Your task to perform on an android device: Add lg ultragear to the cart on target Image 0: 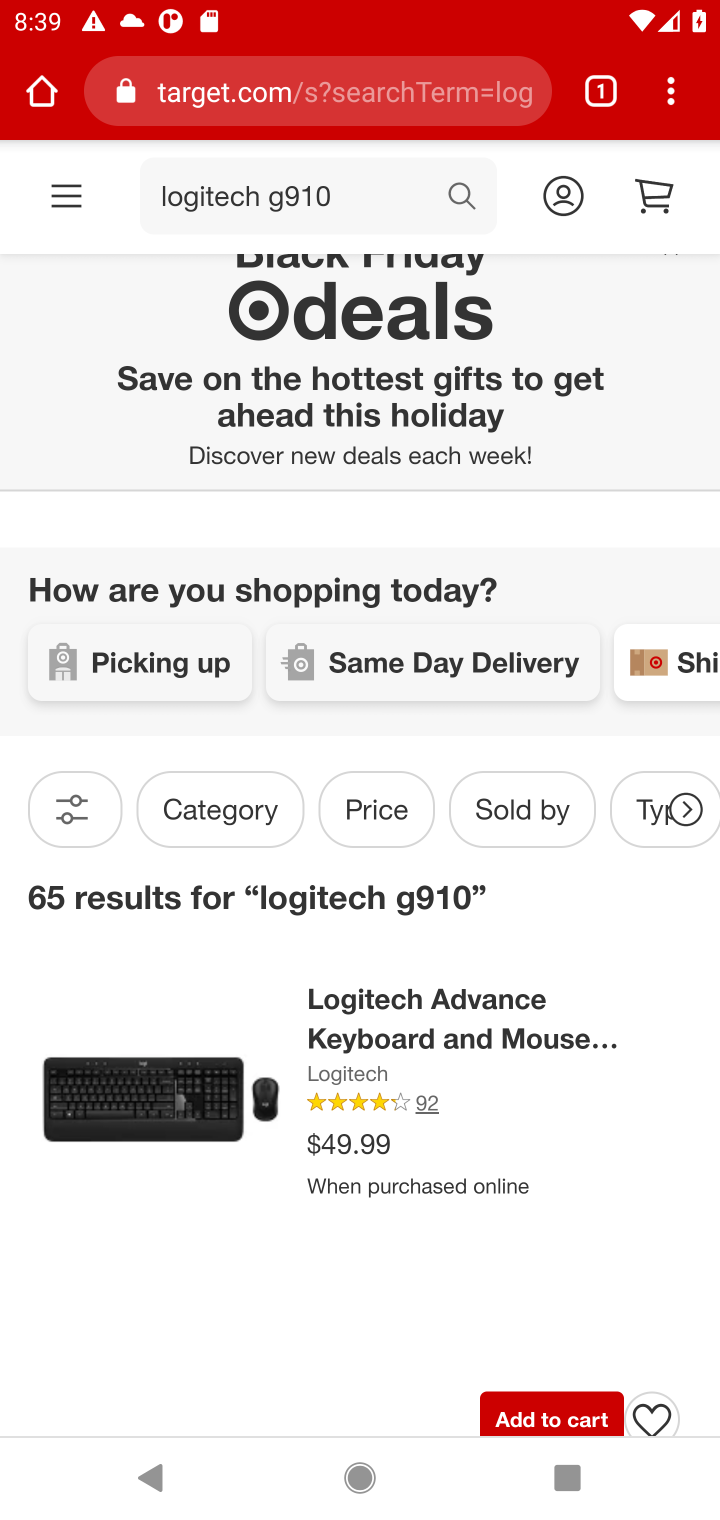
Step 0: press home button
Your task to perform on an android device: Add lg ultragear to the cart on target Image 1: 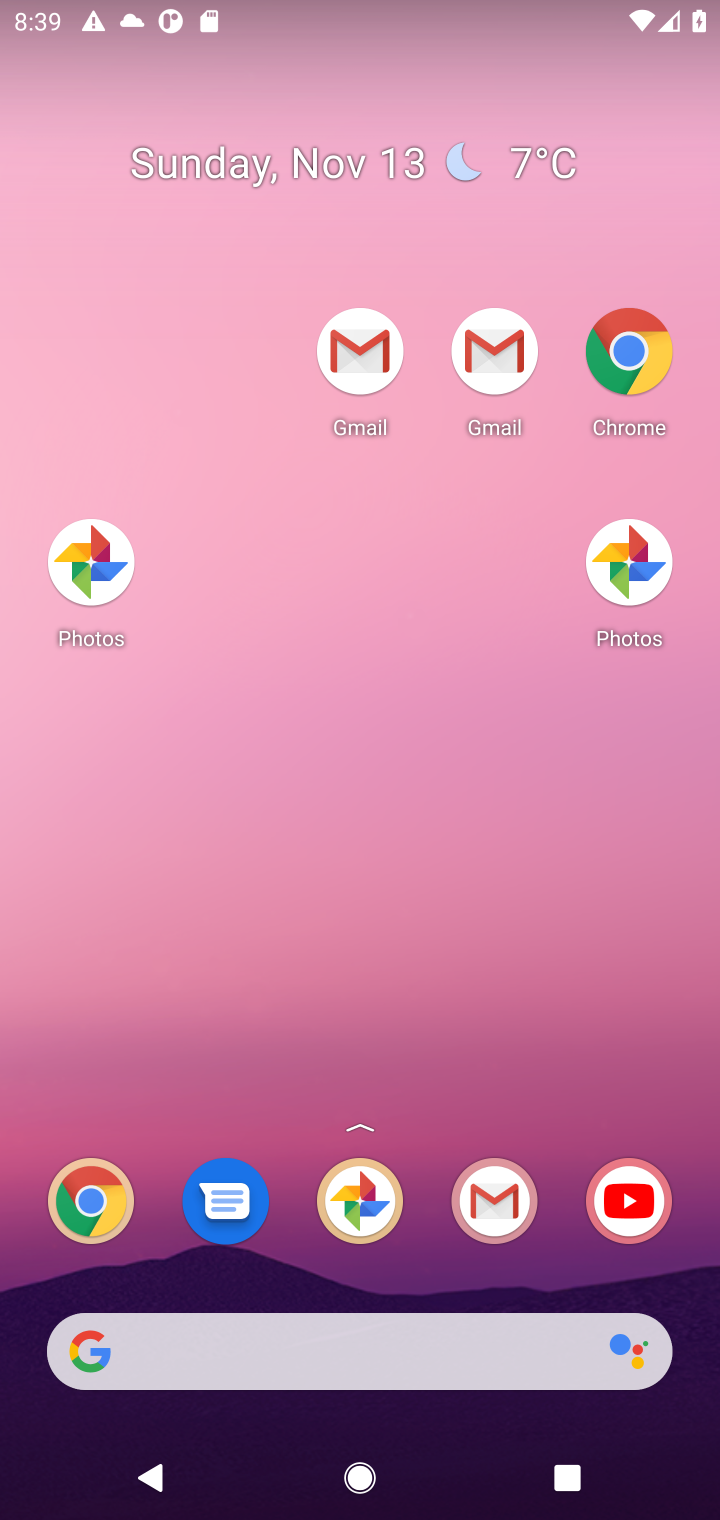
Step 1: drag from (456, 1223) to (407, 192)
Your task to perform on an android device: Add lg ultragear to the cart on target Image 2: 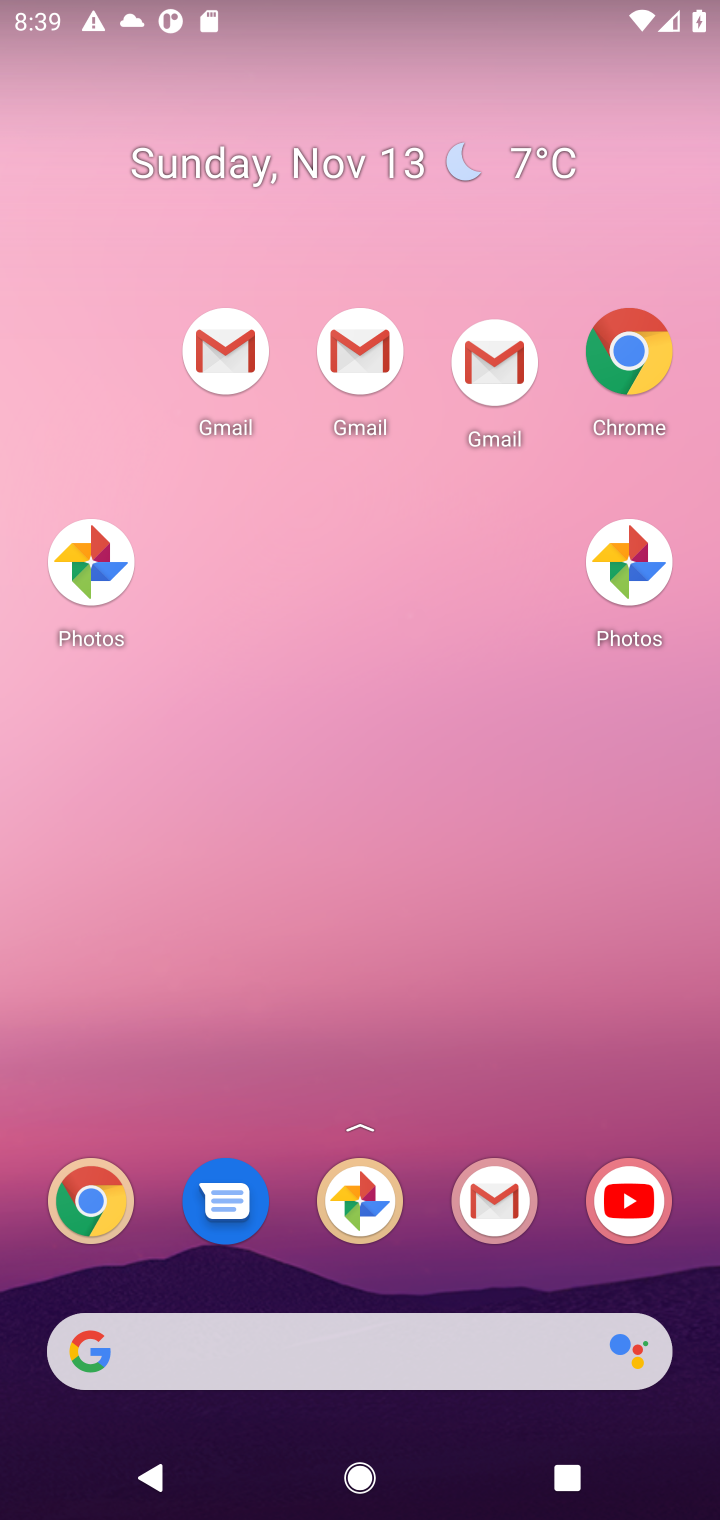
Step 2: drag from (430, 1297) to (449, 279)
Your task to perform on an android device: Add lg ultragear to the cart on target Image 3: 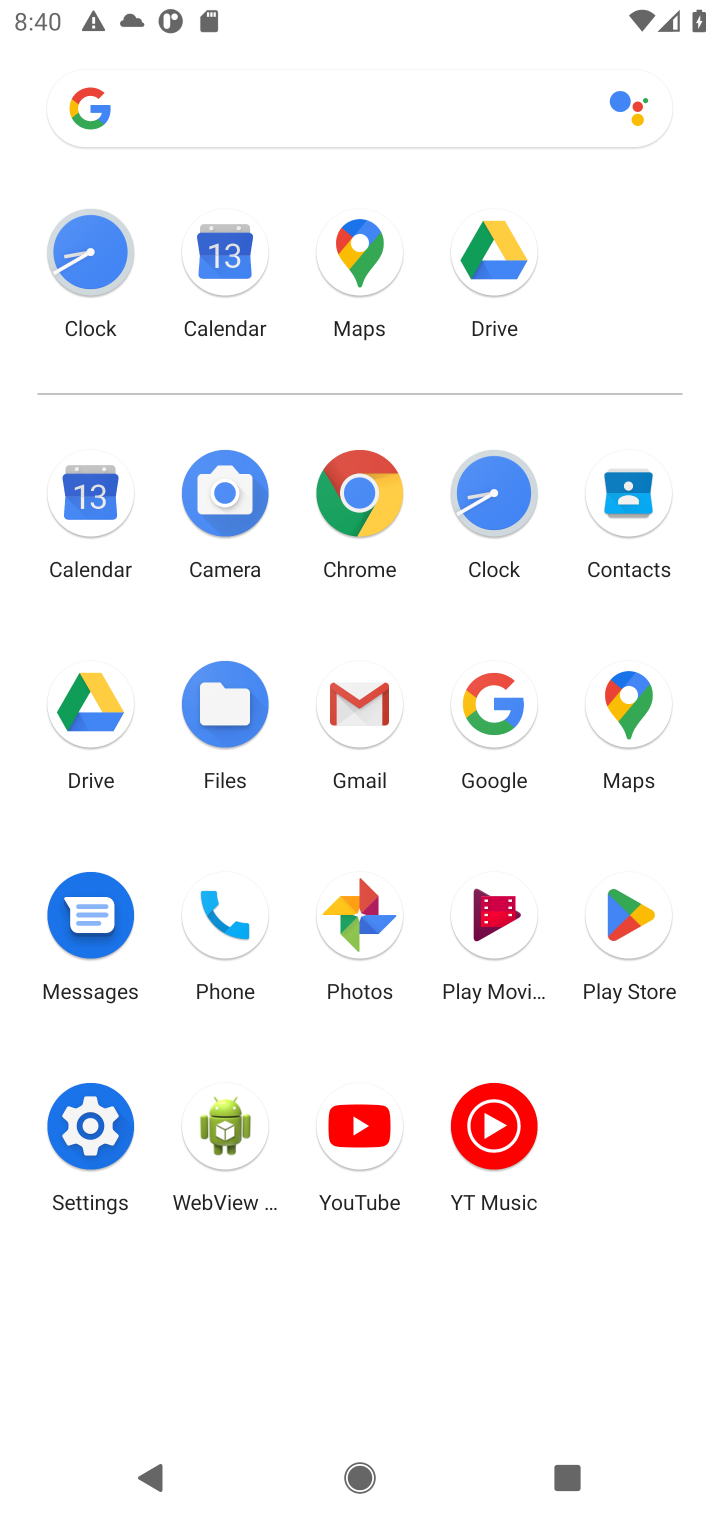
Step 3: click (369, 495)
Your task to perform on an android device: Add lg ultragear to the cart on target Image 4: 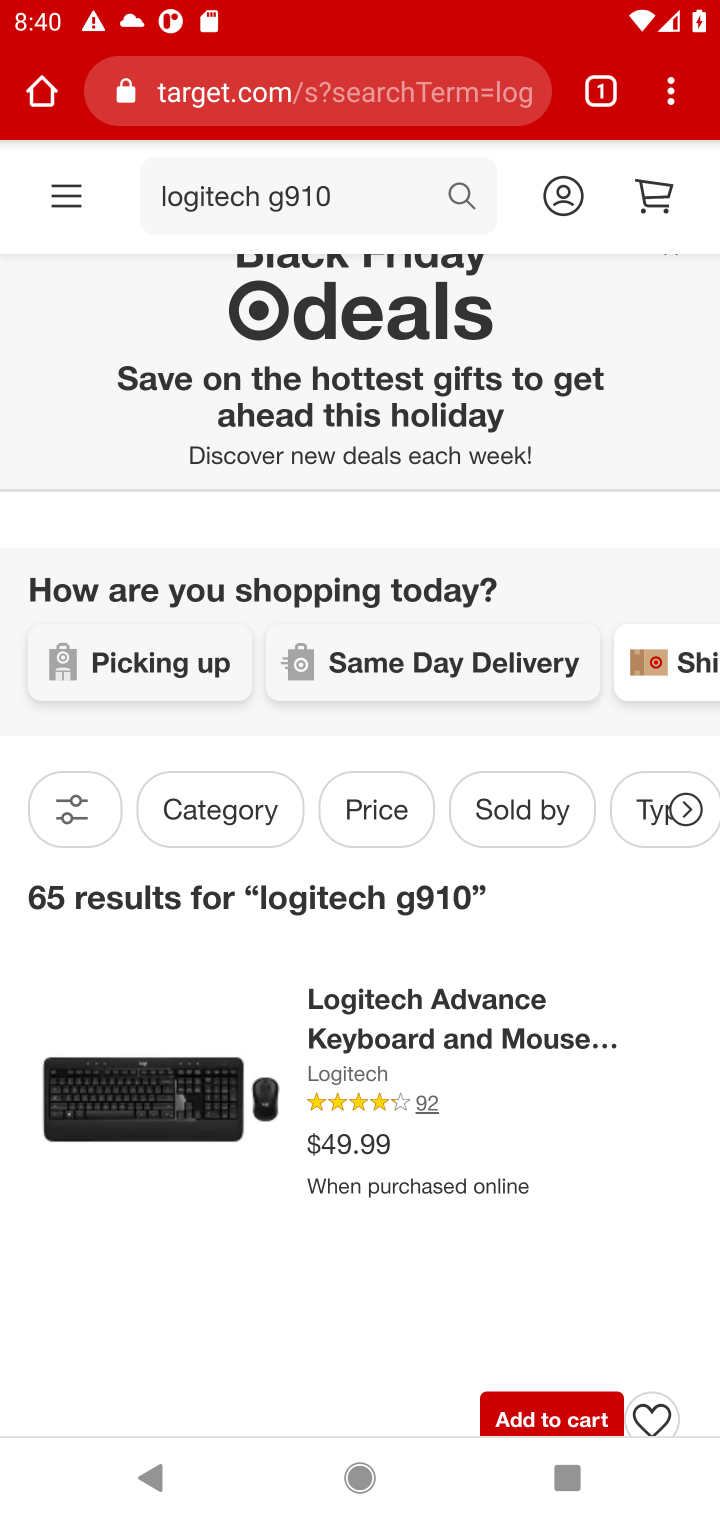
Step 4: click (331, 106)
Your task to perform on an android device: Add lg ultragear to the cart on target Image 5: 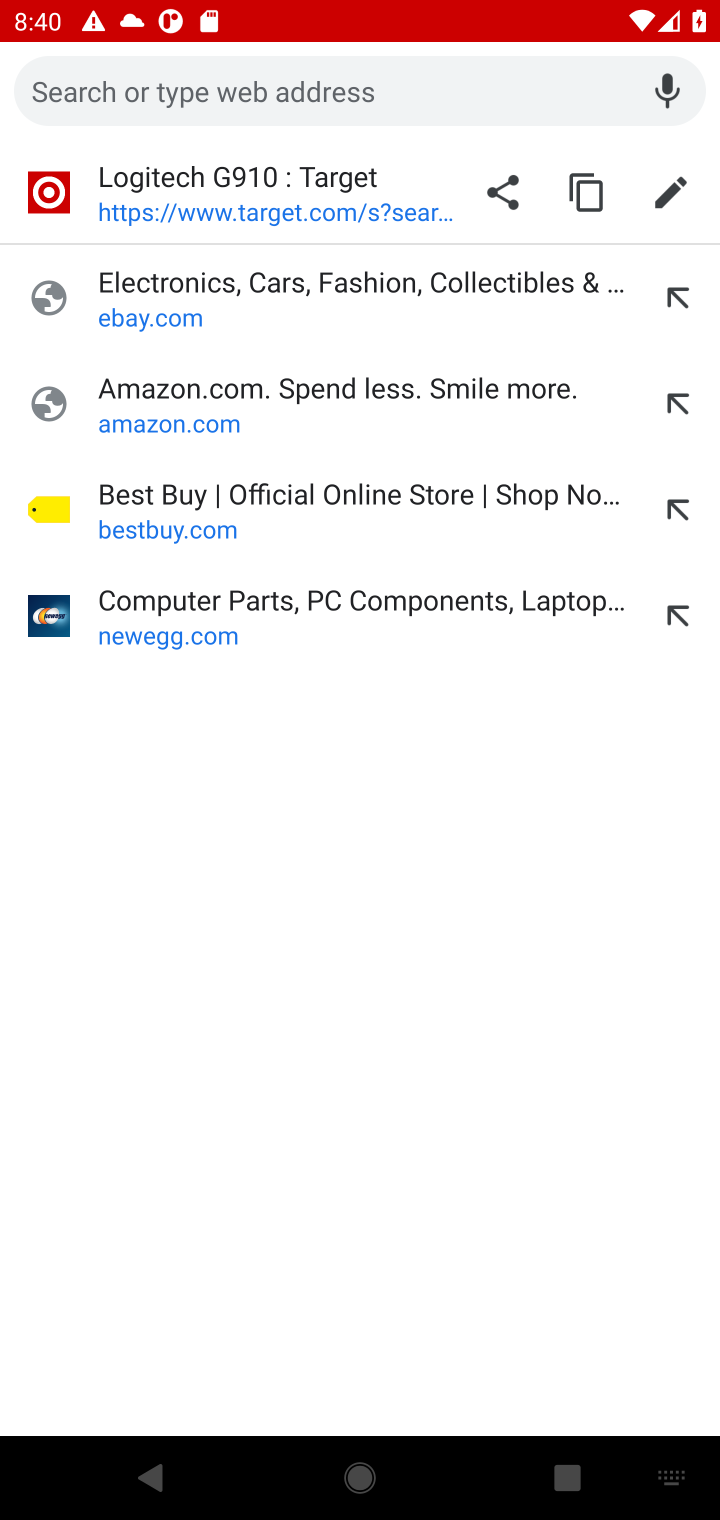
Step 5: type "target.com"
Your task to perform on an android device: Add lg ultragear to the cart on target Image 6: 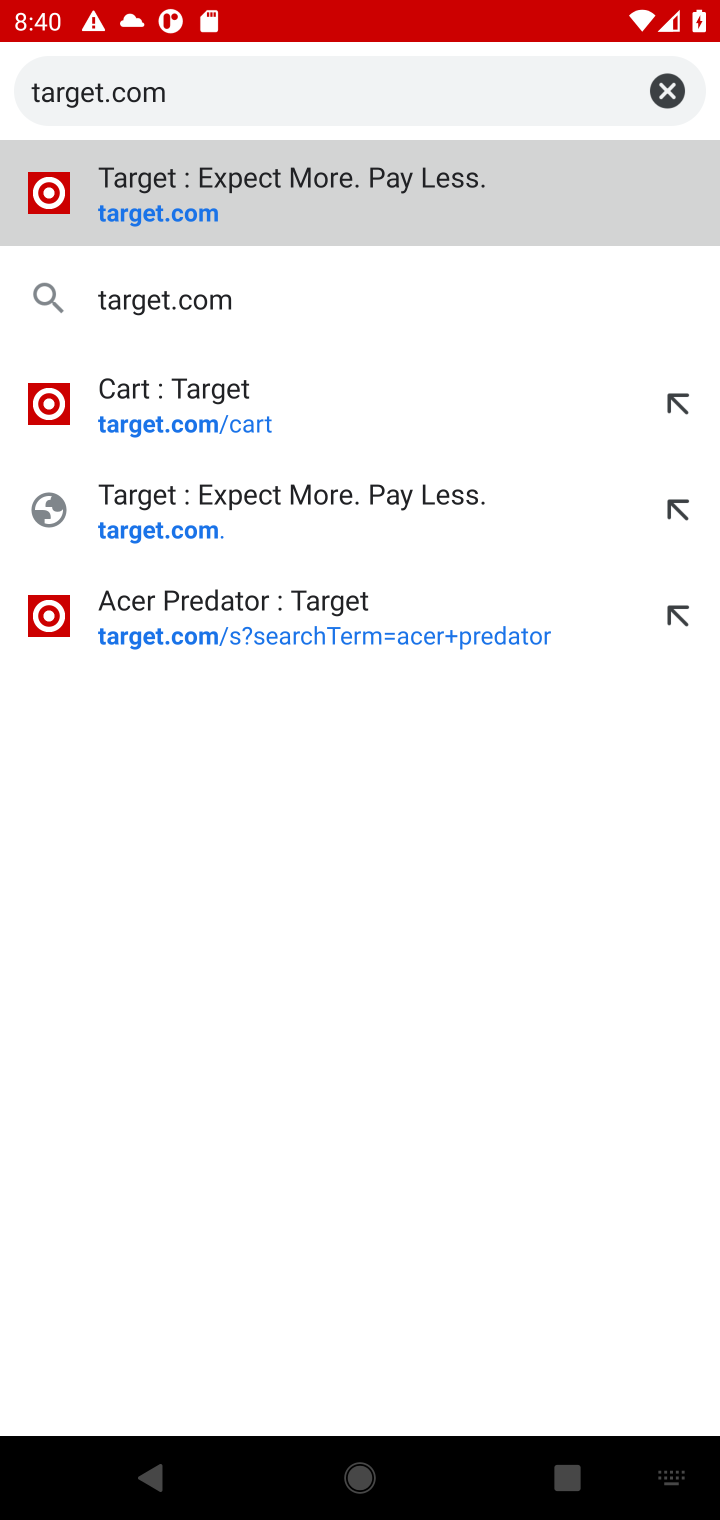
Step 6: press enter
Your task to perform on an android device: Add lg ultragear to the cart on target Image 7: 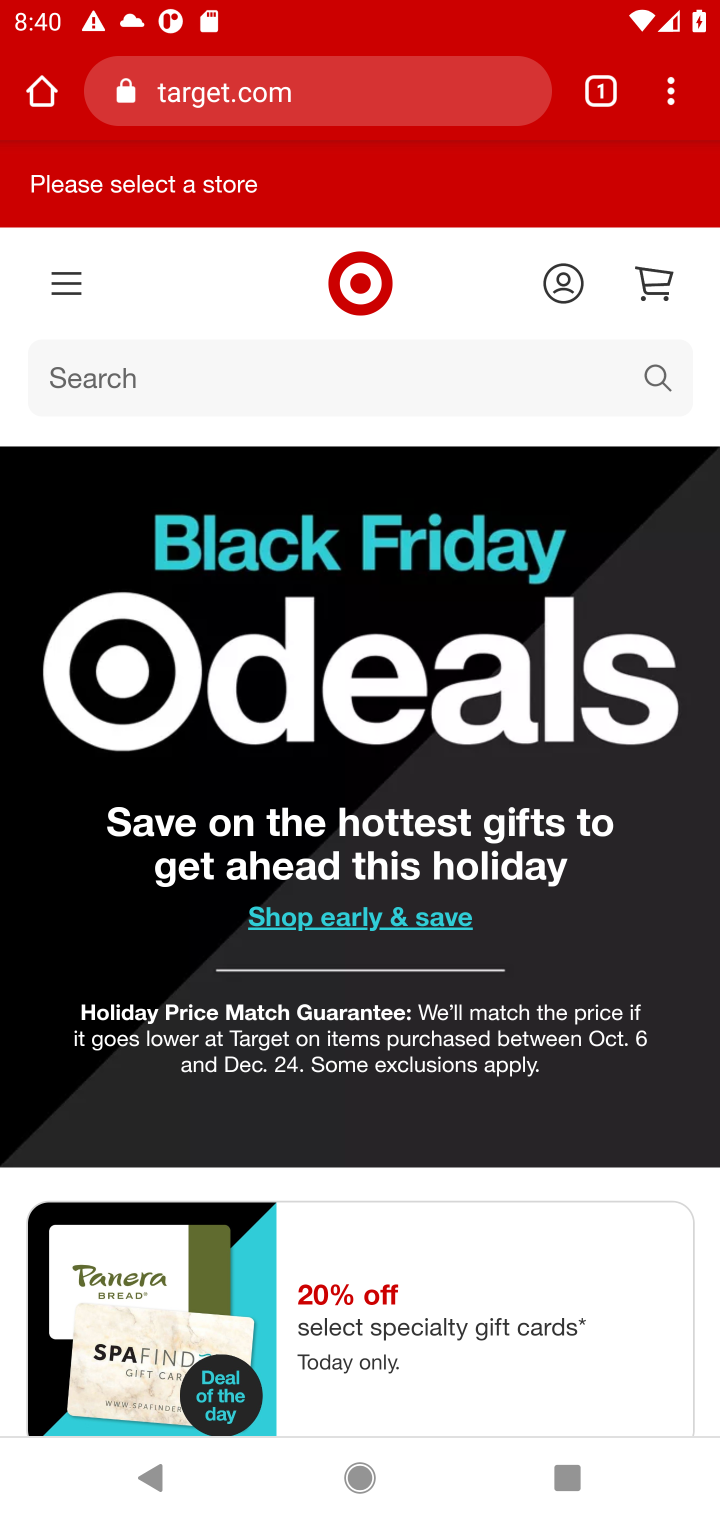
Step 7: click (264, 384)
Your task to perform on an android device: Add lg ultragear to the cart on target Image 8: 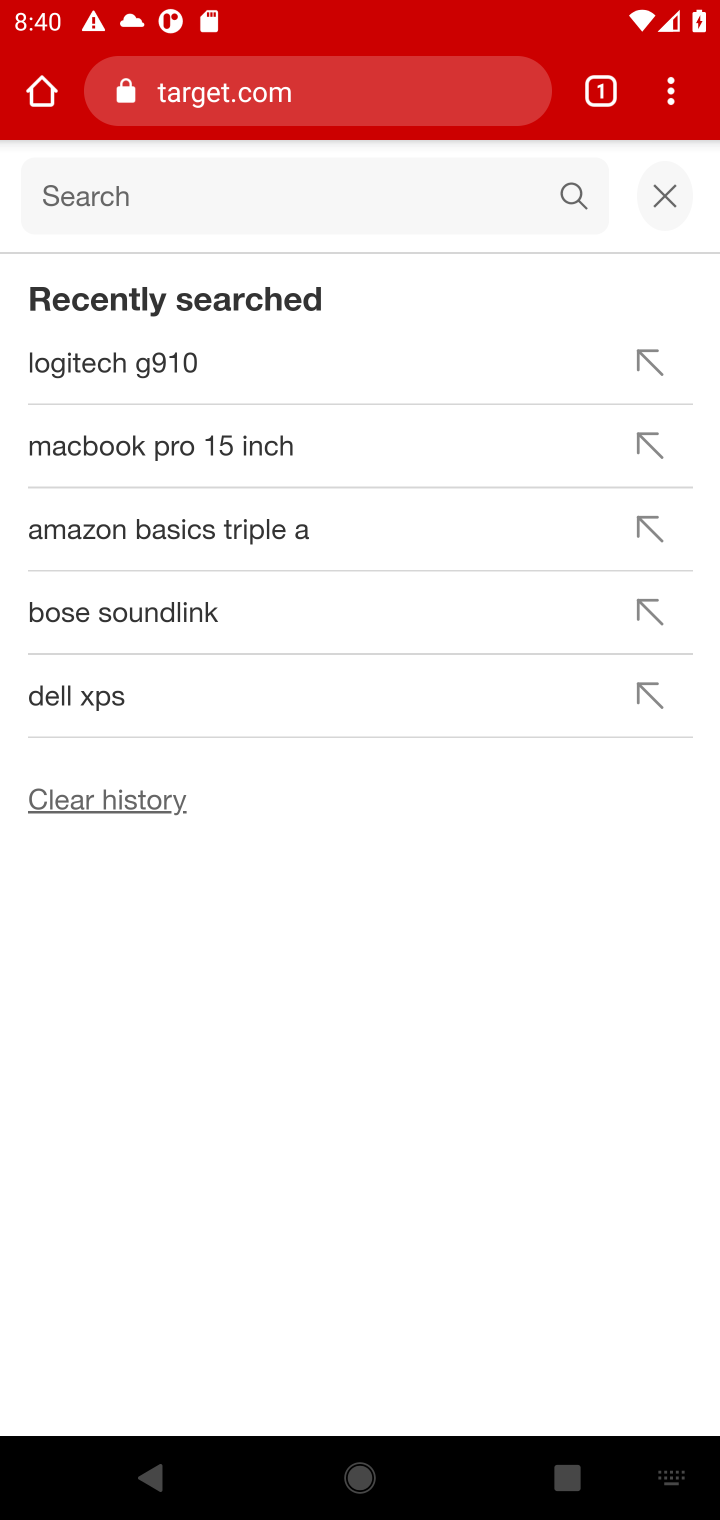
Step 8: type "lg ultragear"
Your task to perform on an android device: Add lg ultragear to the cart on target Image 9: 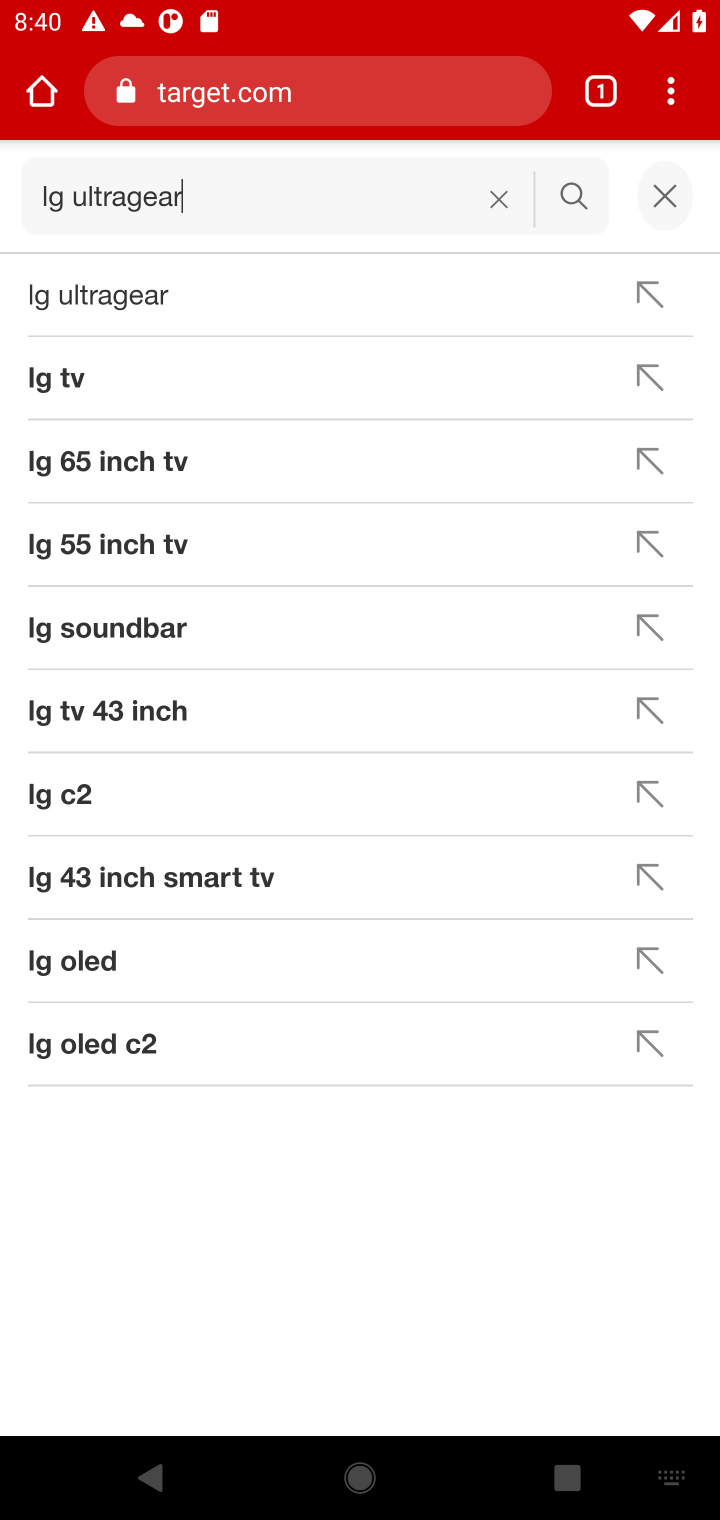
Step 9: press enter
Your task to perform on an android device: Add lg ultragear to the cart on target Image 10: 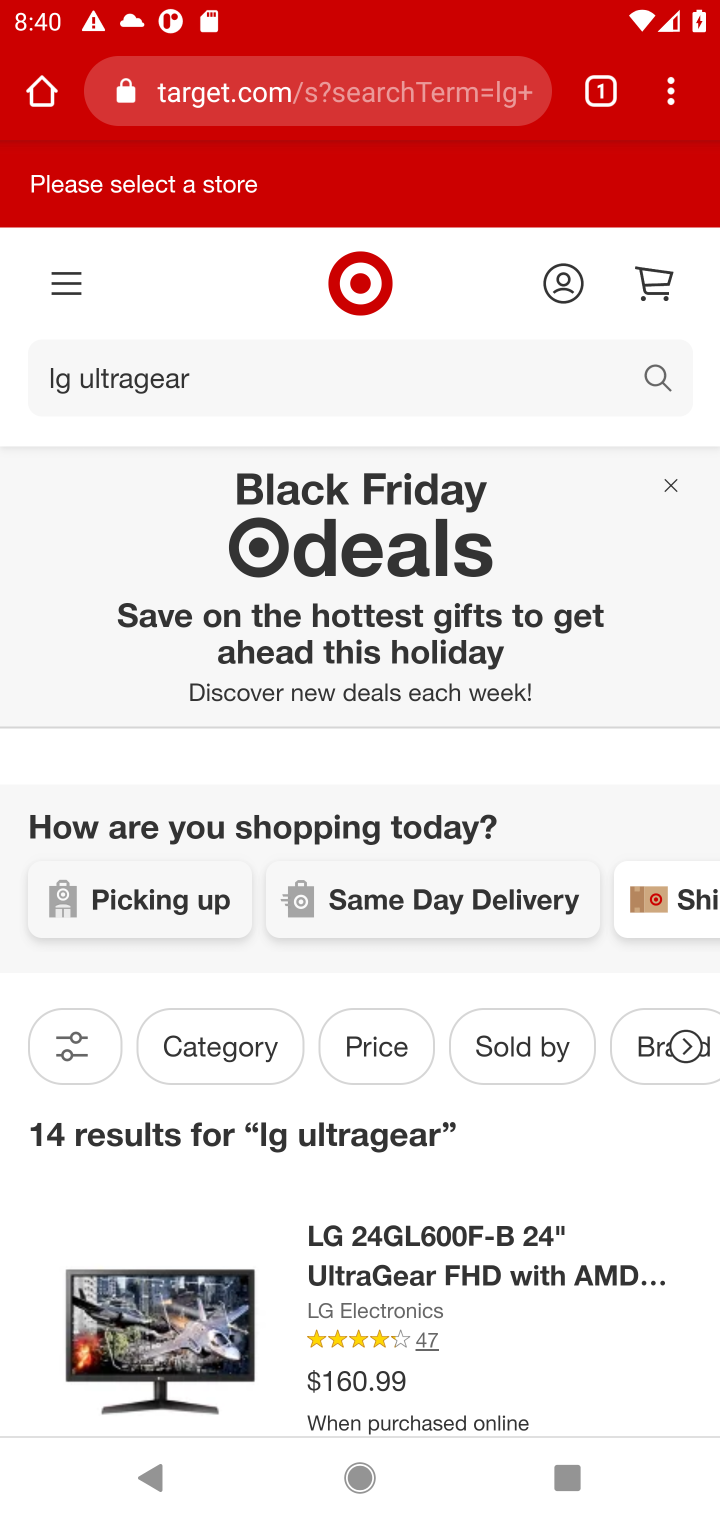
Step 10: drag from (554, 1322) to (603, 698)
Your task to perform on an android device: Add lg ultragear to the cart on target Image 11: 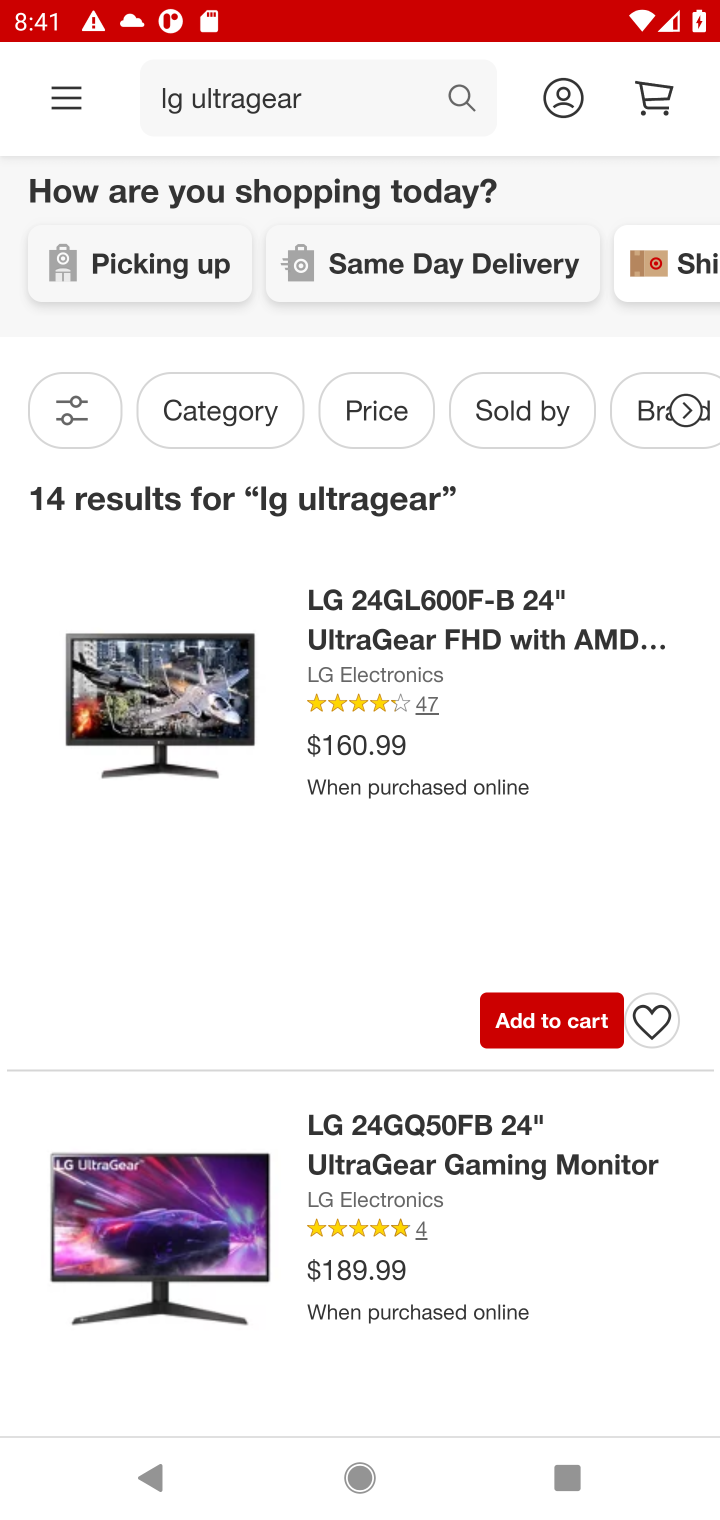
Step 11: click (547, 1022)
Your task to perform on an android device: Add lg ultragear to the cart on target Image 12: 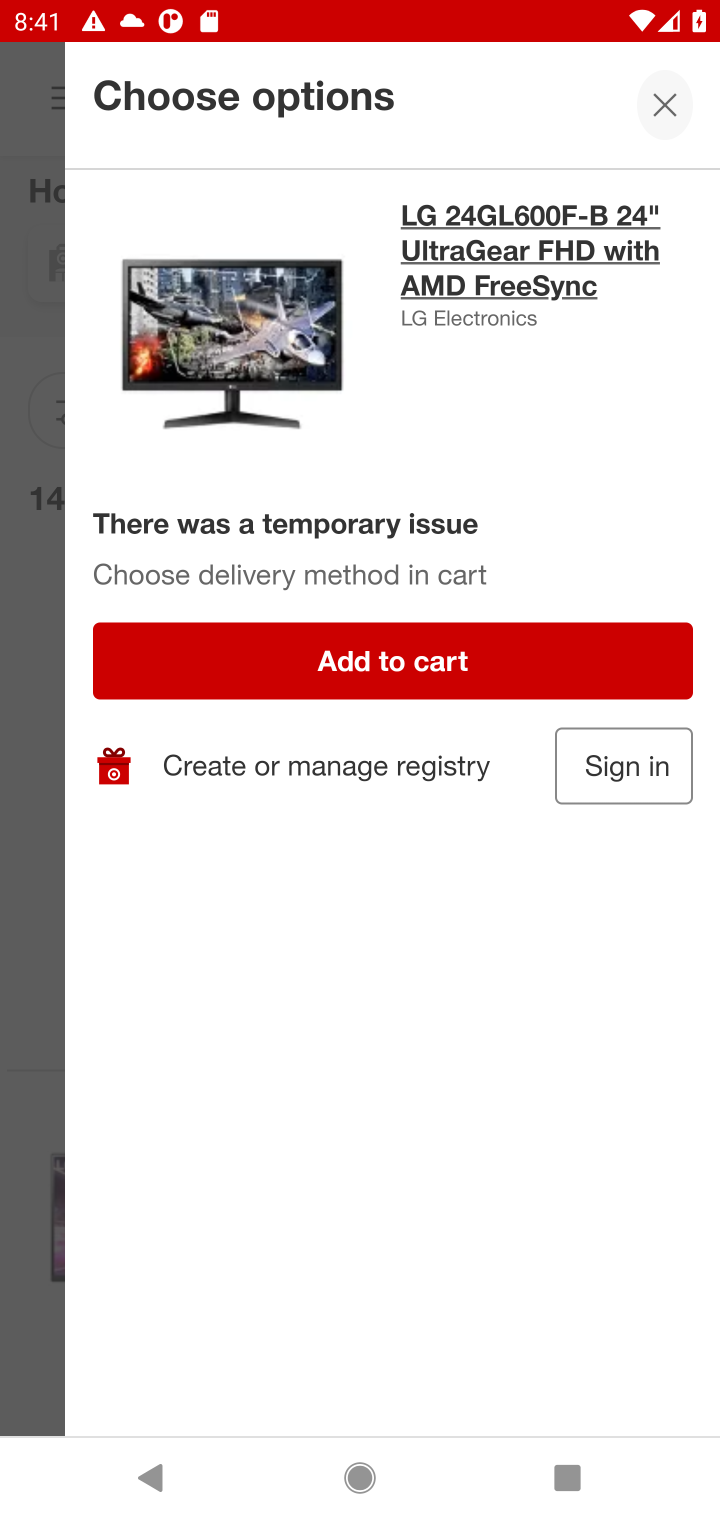
Step 12: click (375, 674)
Your task to perform on an android device: Add lg ultragear to the cart on target Image 13: 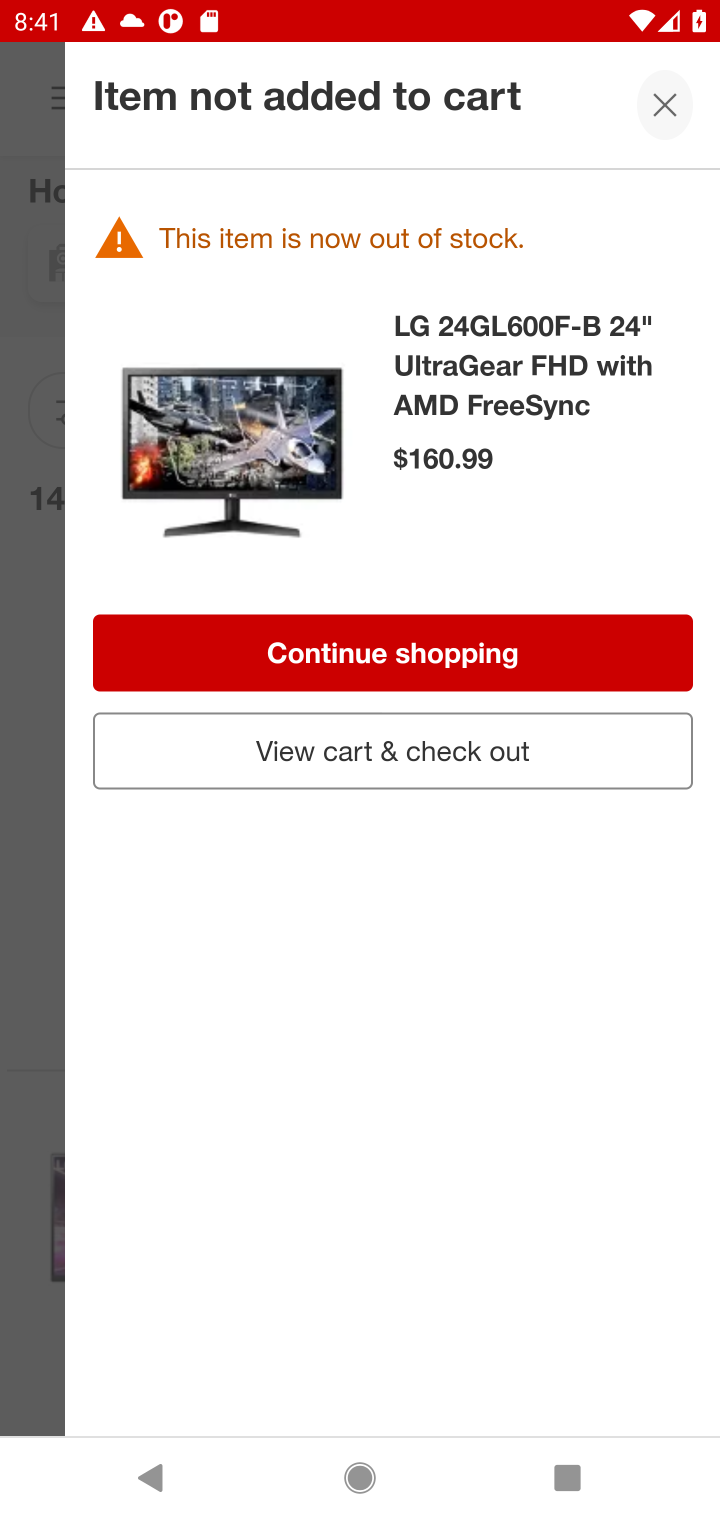
Step 13: task complete